Your task to perform on an android device: Go to network settings Image 0: 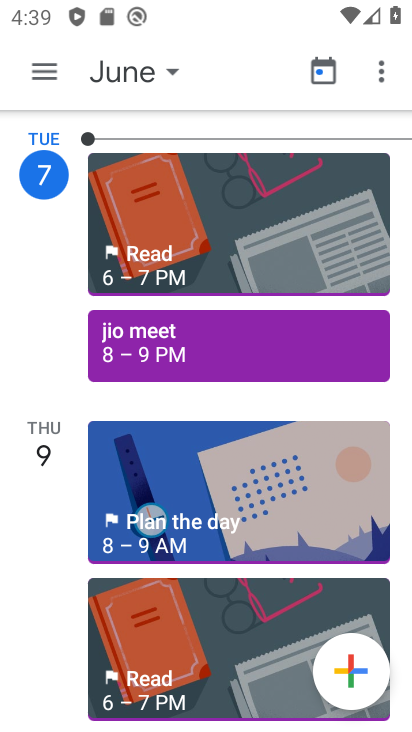
Step 0: press home button
Your task to perform on an android device: Go to network settings Image 1: 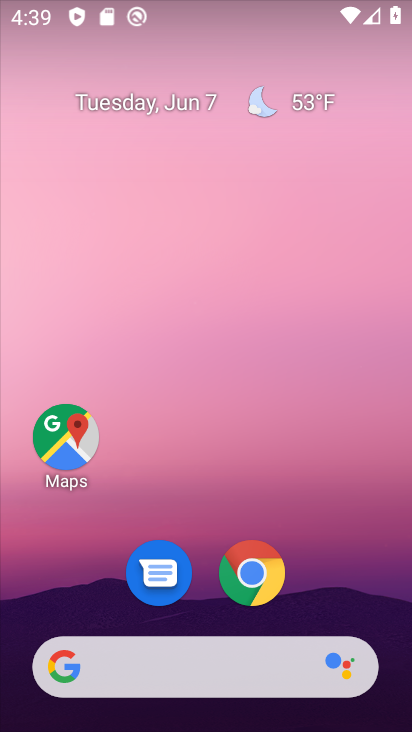
Step 1: drag from (262, 623) to (256, 212)
Your task to perform on an android device: Go to network settings Image 2: 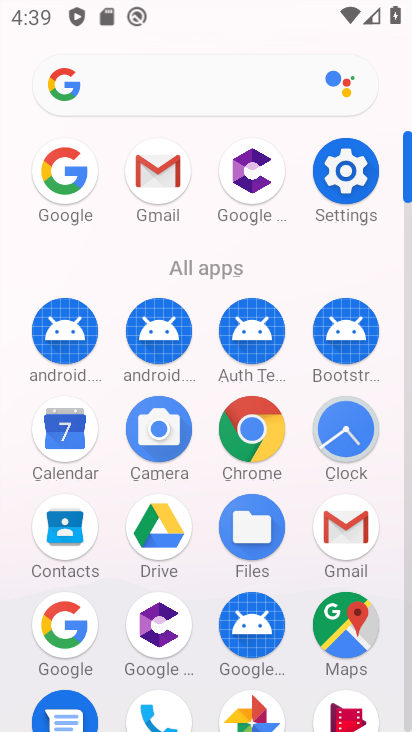
Step 2: click (352, 178)
Your task to perform on an android device: Go to network settings Image 3: 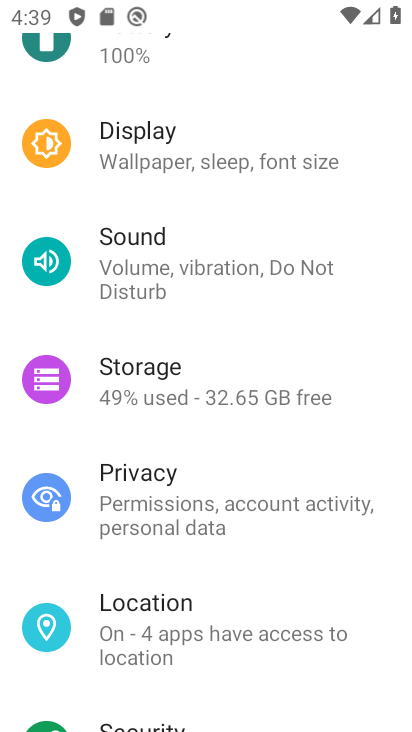
Step 3: drag from (224, 112) to (243, 602)
Your task to perform on an android device: Go to network settings Image 4: 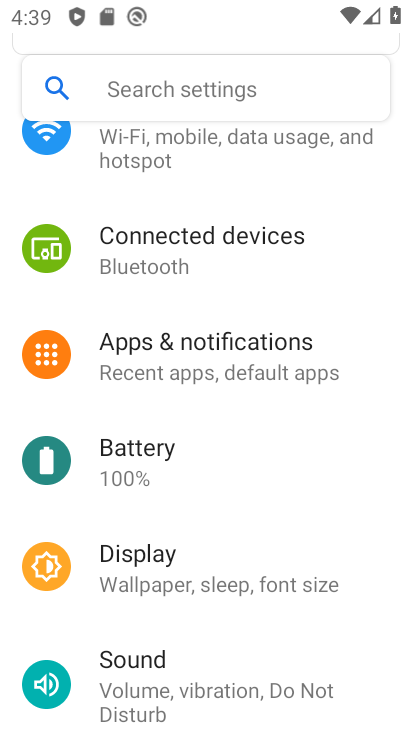
Step 4: drag from (196, 188) to (217, 566)
Your task to perform on an android device: Go to network settings Image 5: 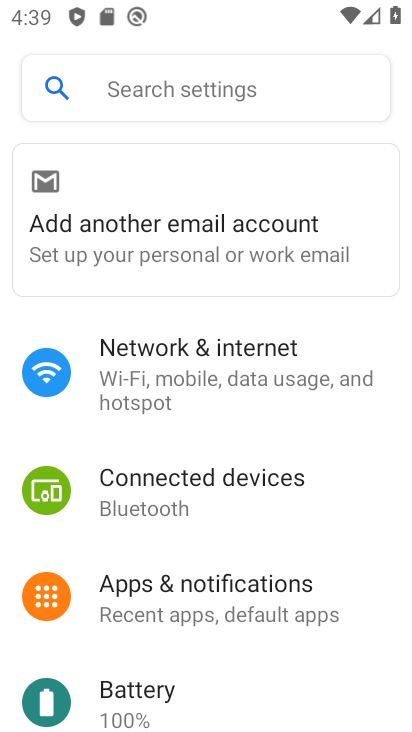
Step 5: click (237, 370)
Your task to perform on an android device: Go to network settings Image 6: 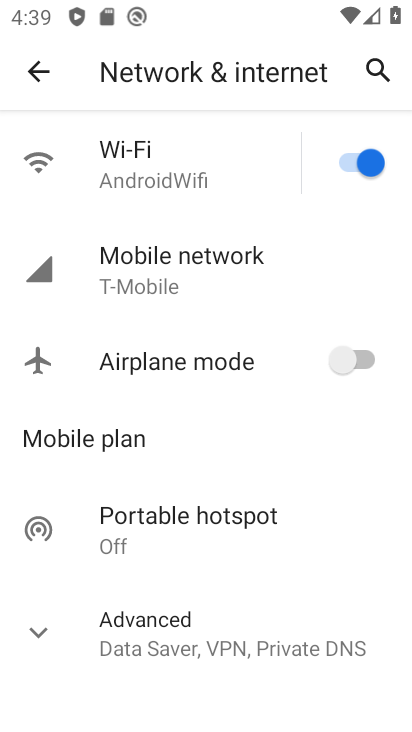
Step 6: click (183, 631)
Your task to perform on an android device: Go to network settings Image 7: 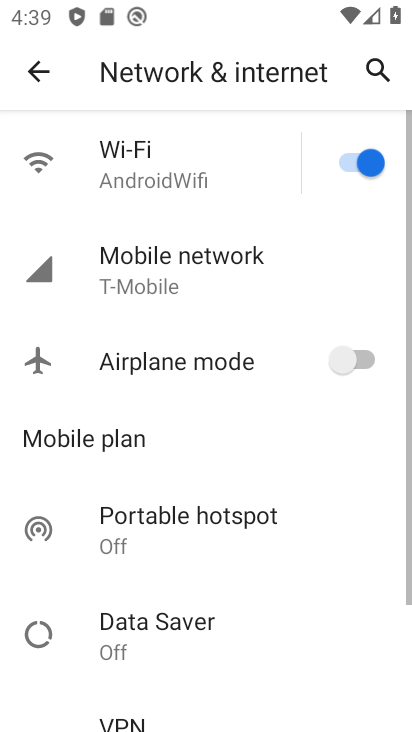
Step 7: click (145, 285)
Your task to perform on an android device: Go to network settings Image 8: 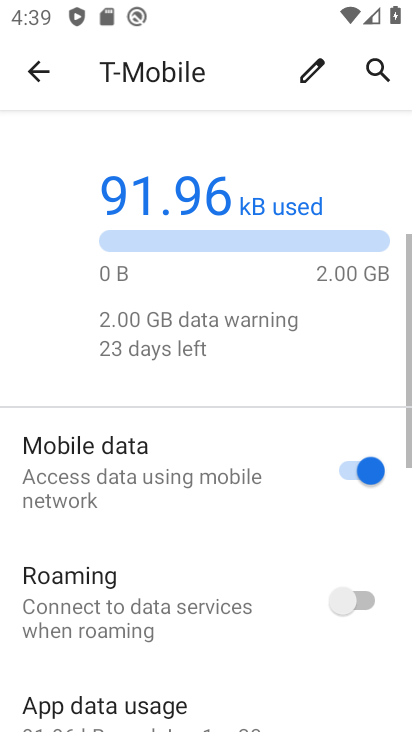
Step 8: task complete